Your task to perform on an android device: Open the map Image 0: 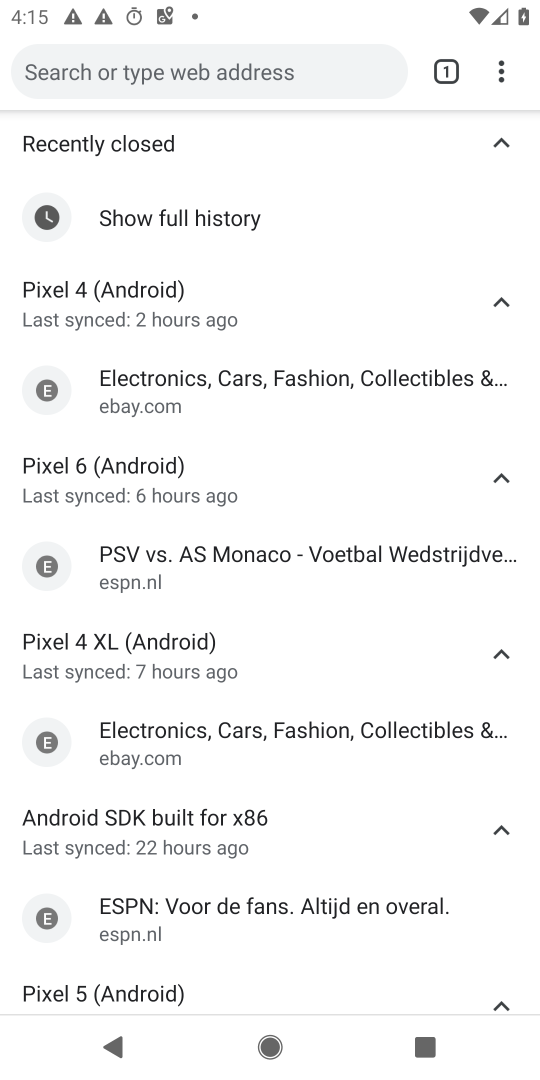
Step 0: press home button
Your task to perform on an android device: Open the map Image 1: 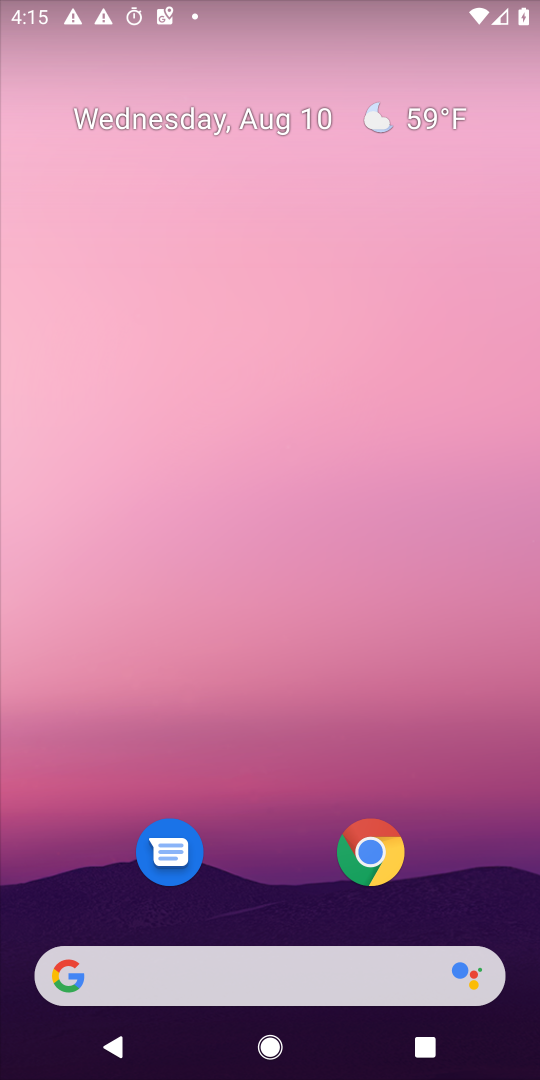
Step 1: drag from (301, 916) to (136, 180)
Your task to perform on an android device: Open the map Image 2: 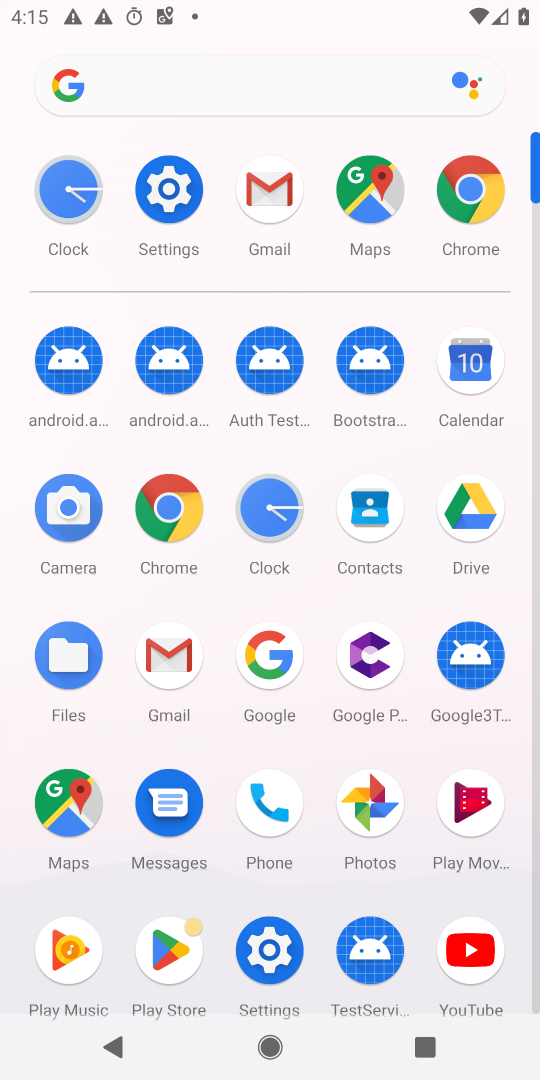
Step 2: click (65, 807)
Your task to perform on an android device: Open the map Image 3: 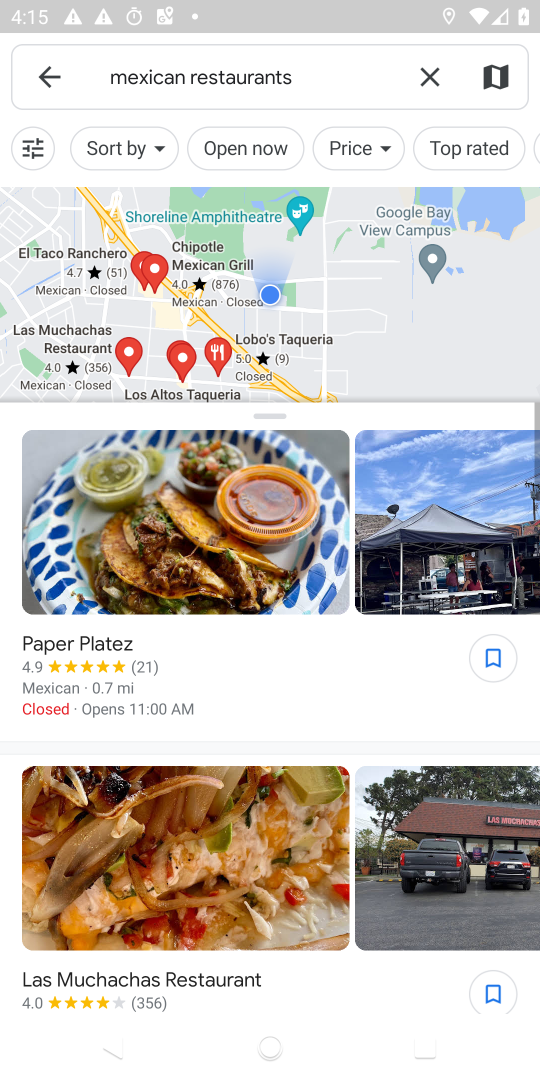
Step 3: task complete